Your task to perform on an android device: Go to CNN.com Image 0: 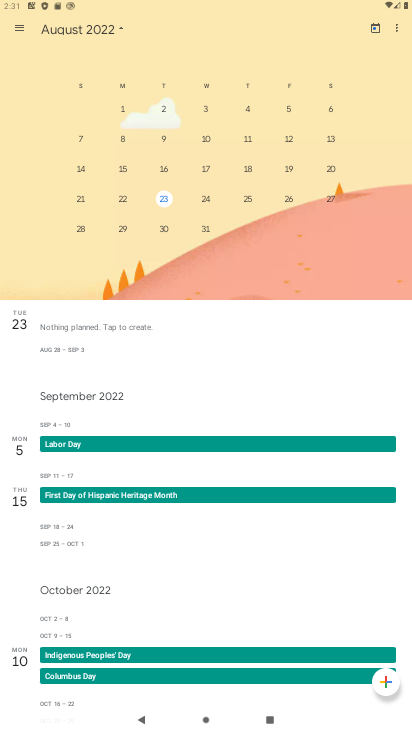
Step 0: press home button
Your task to perform on an android device: Go to CNN.com Image 1: 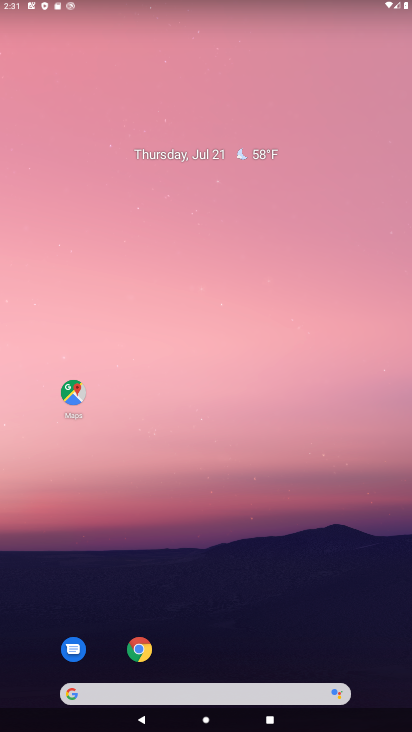
Step 1: click (141, 641)
Your task to perform on an android device: Go to CNN.com Image 2: 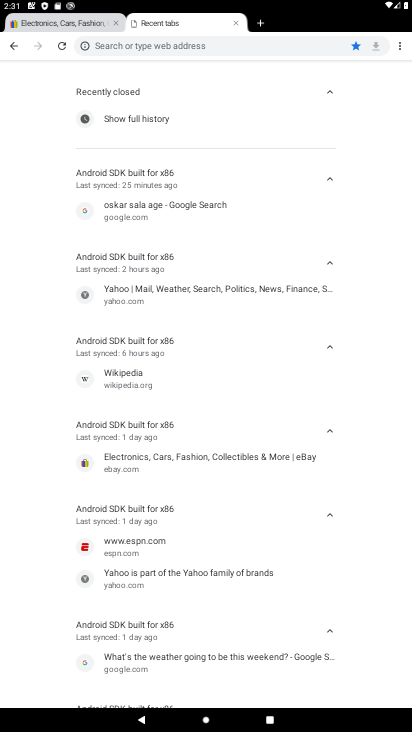
Step 2: click (261, 26)
Your task to perform on an android device: Go to CNN.com Image 3: 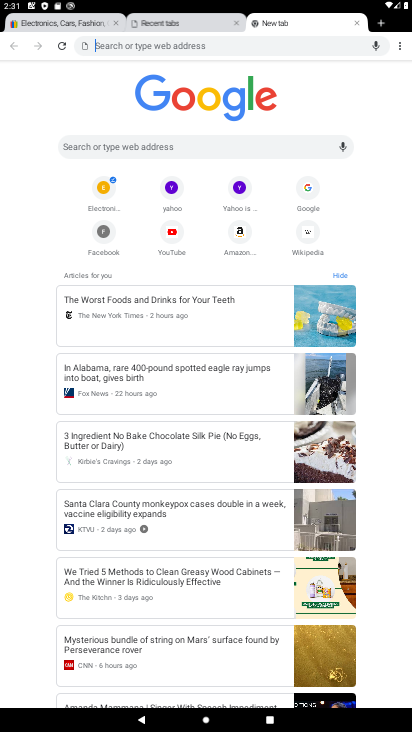
Step 3: type "cnn.com"
Your task to perform on an android device: Go to CNN.com Image 4: 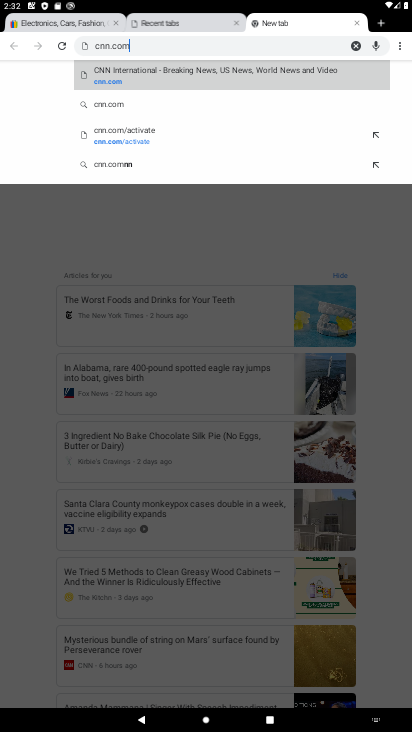
Step 4: click (221, 74)
Your task to perform on an android device: Go to CNN.com Image 5: 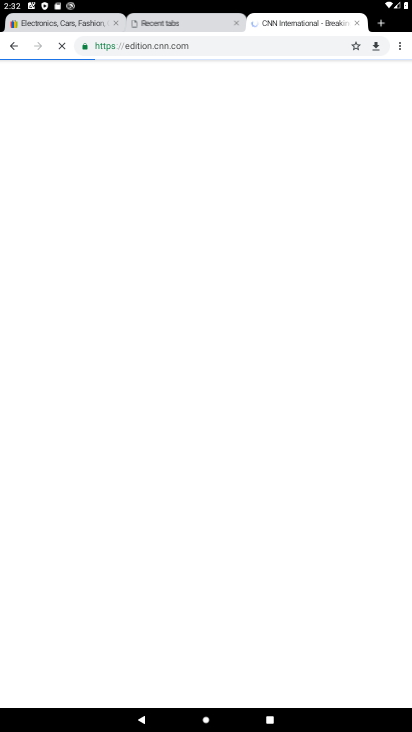
Step 5: task complete